Your task to perform on an android device: turn on wifi Image 0: 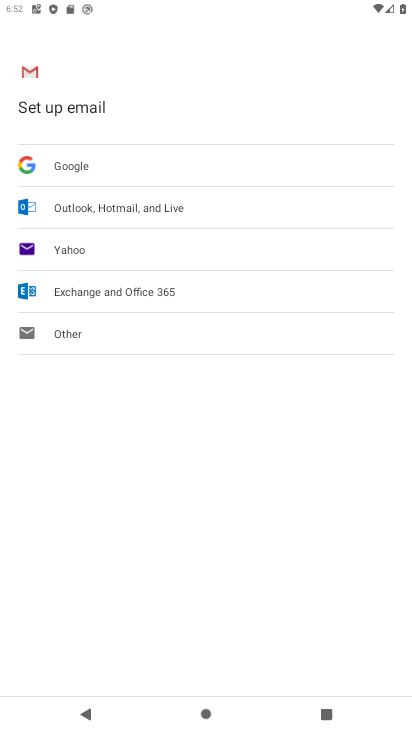
Step 0: press home button
Your task to perform on an android device: turn on wifi Image 1: 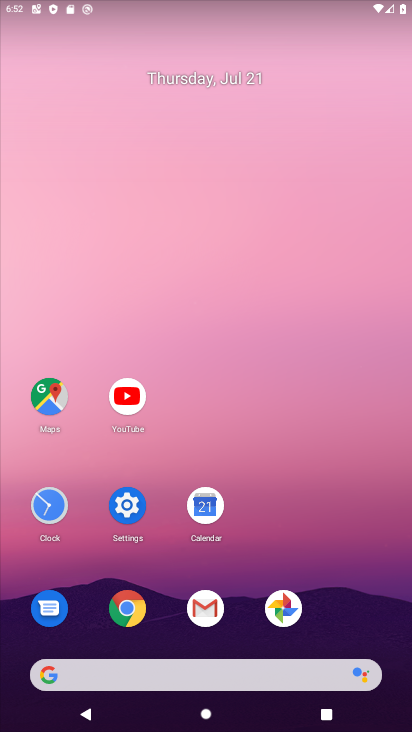
Step 1: click (124, 502)
Your task to perform on an android device: turn on wifi Image 2: 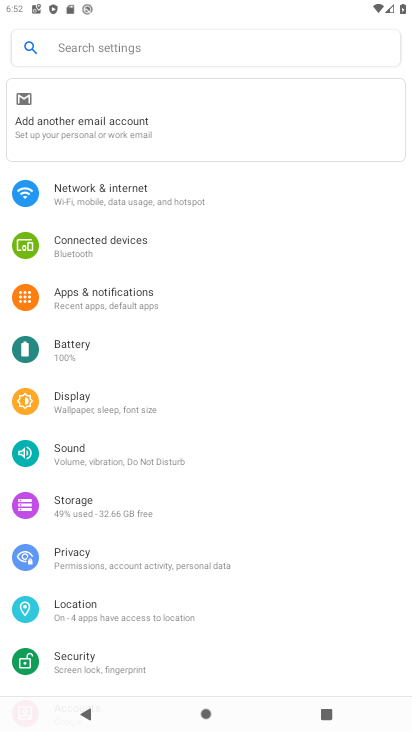
Step 2: click (104, 192)
Your task to perform on an android device: turn on wifi Image 3: 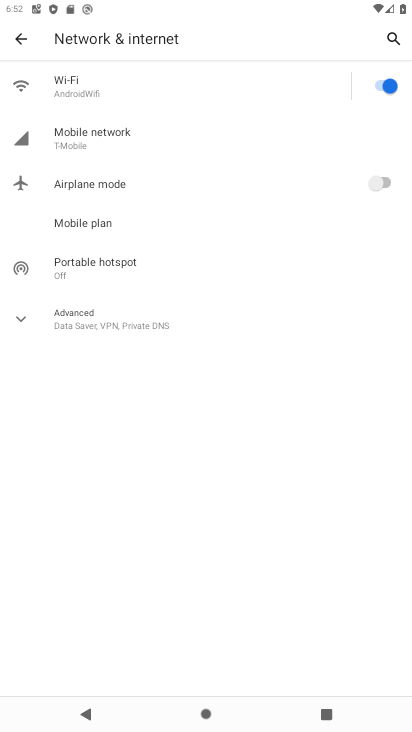
Step 3: task complete